Your task to perform on an android device: open app "AliExpress" Image 0: 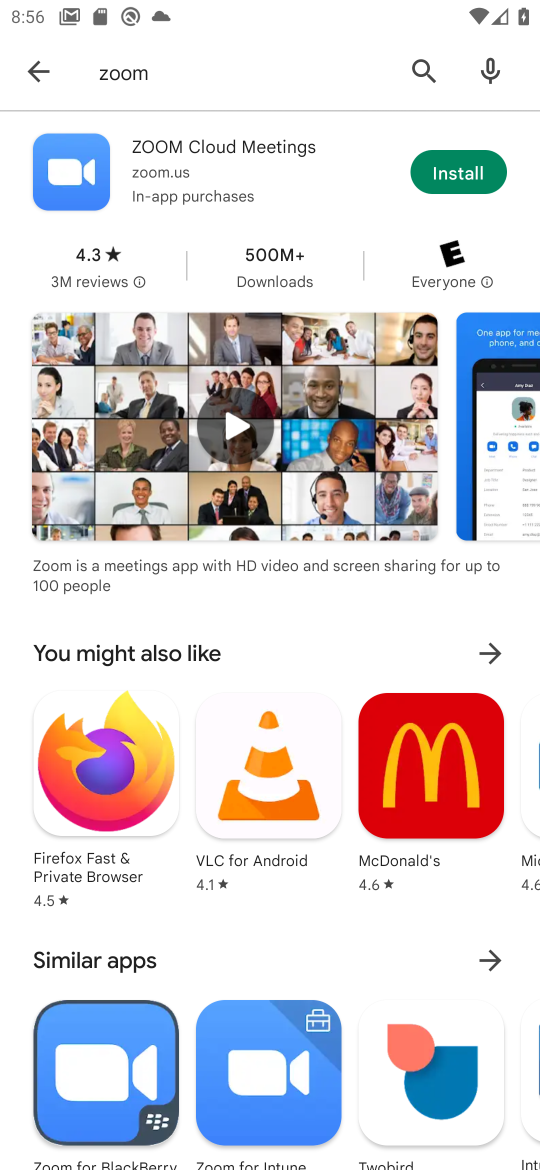
Step 0: press home button
Your task to perform on an android device: open app "AliExpress" Image 1: 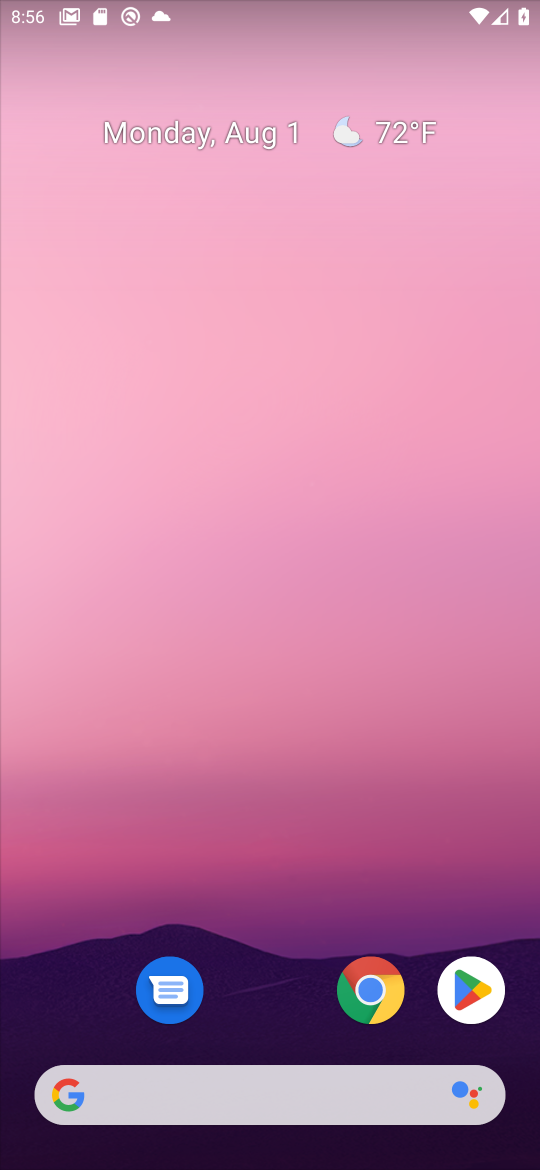
Step 1: click (456, 992)
Your task to perform on an android device: open app "AliExpress" Image 2: 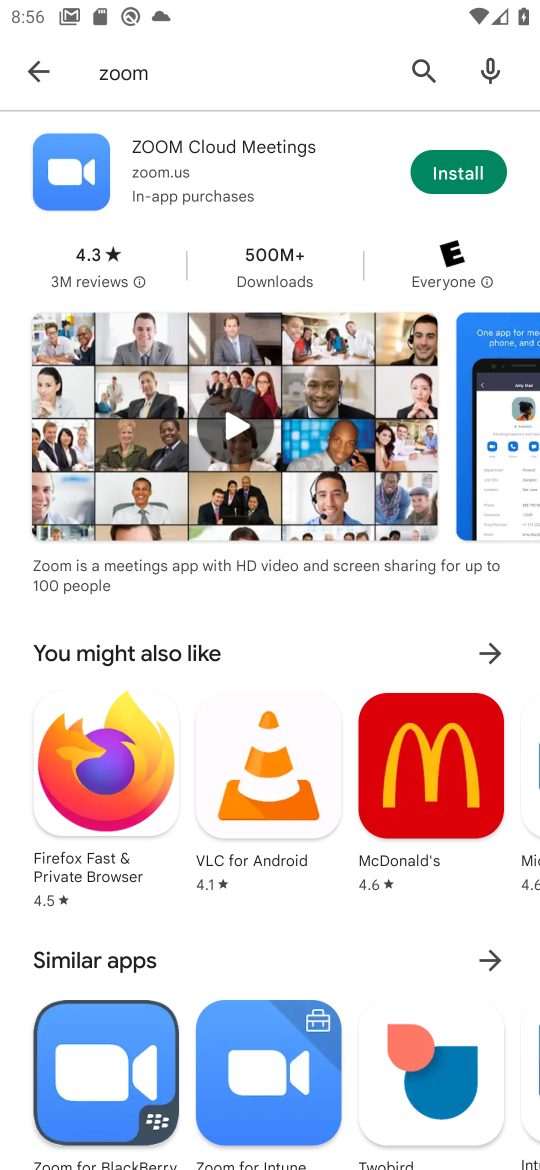
Step 2: click (415, 69)
Your task to perform on an android device: open app "AliExpress" Image 3: 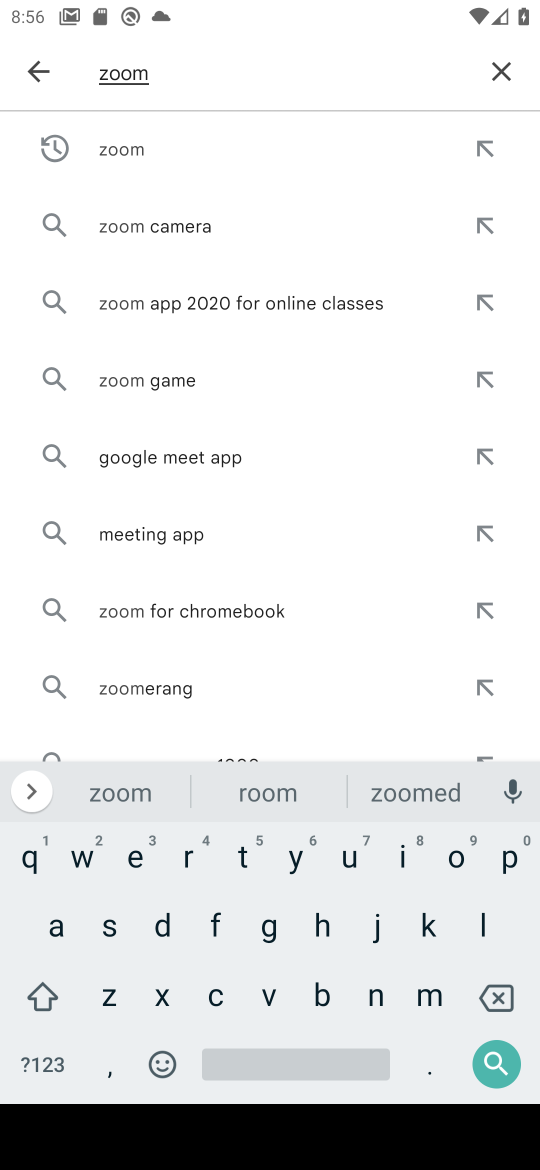
Step 3: click (497, 62)
Your task to perform on an android device: open app "AliExpress" Image 4: 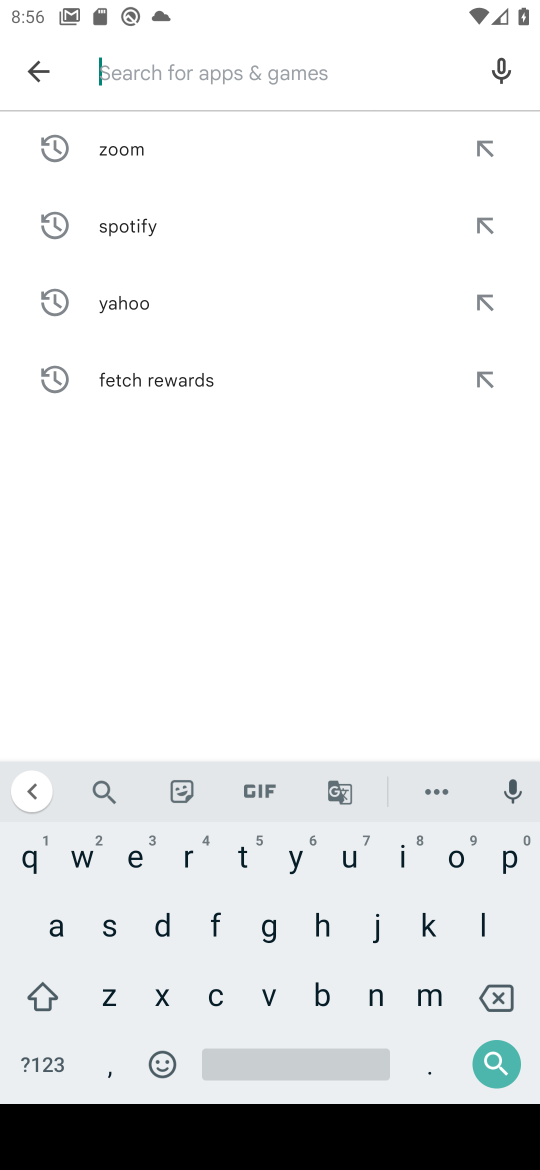
Step 4: click (55, 916)
Your task to perform on an android device: open app "AliExpress" Image 5: 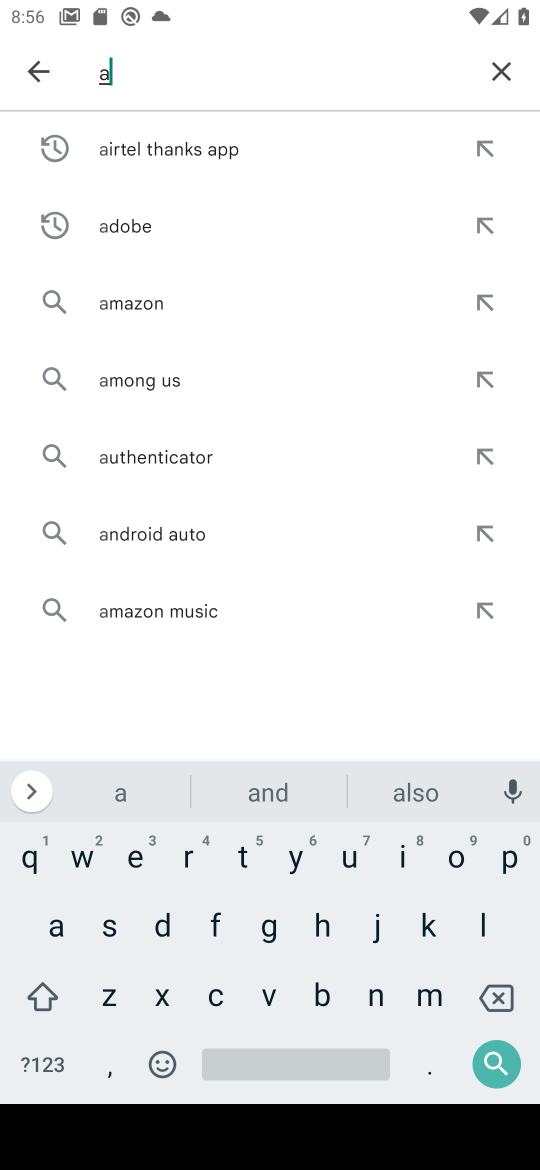
Step 5: click (464, 913)
Your task to perform on an android device: open app "AliExpress" Image 6: 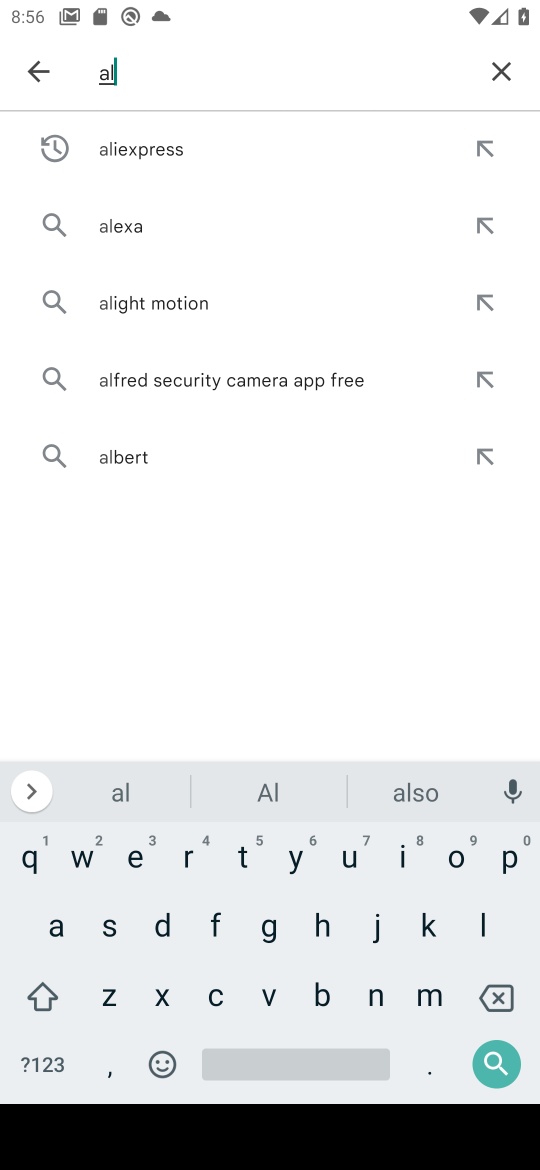
Step 6: click (403, 859)
Your task to perform on an android device: open app "AliExpress" Image 7: 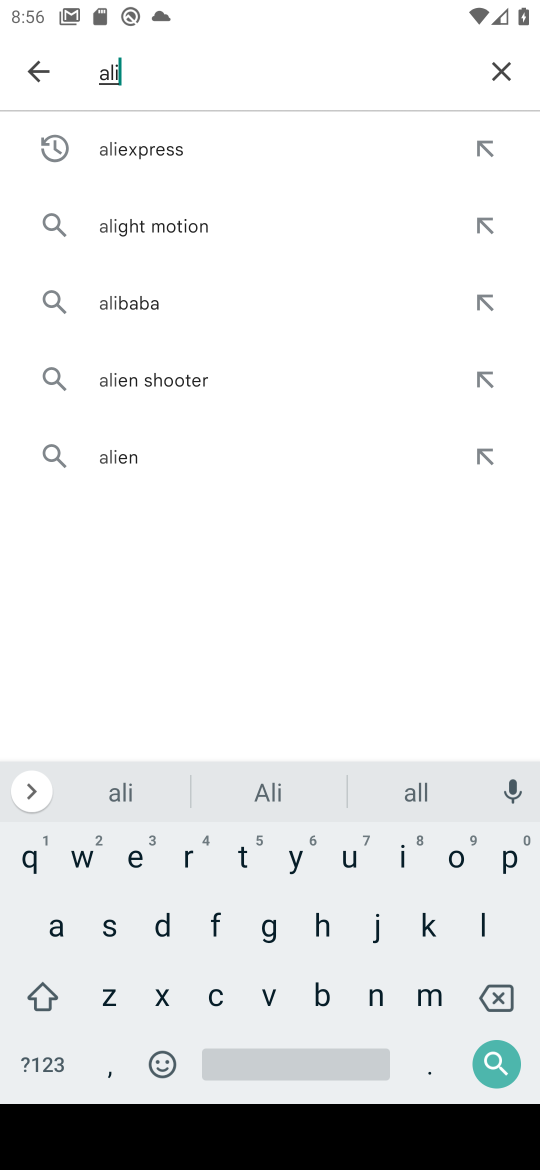
Step 7: click (273, 167)
Your task to perform on an android device: open app "AliExpress" Image 8: 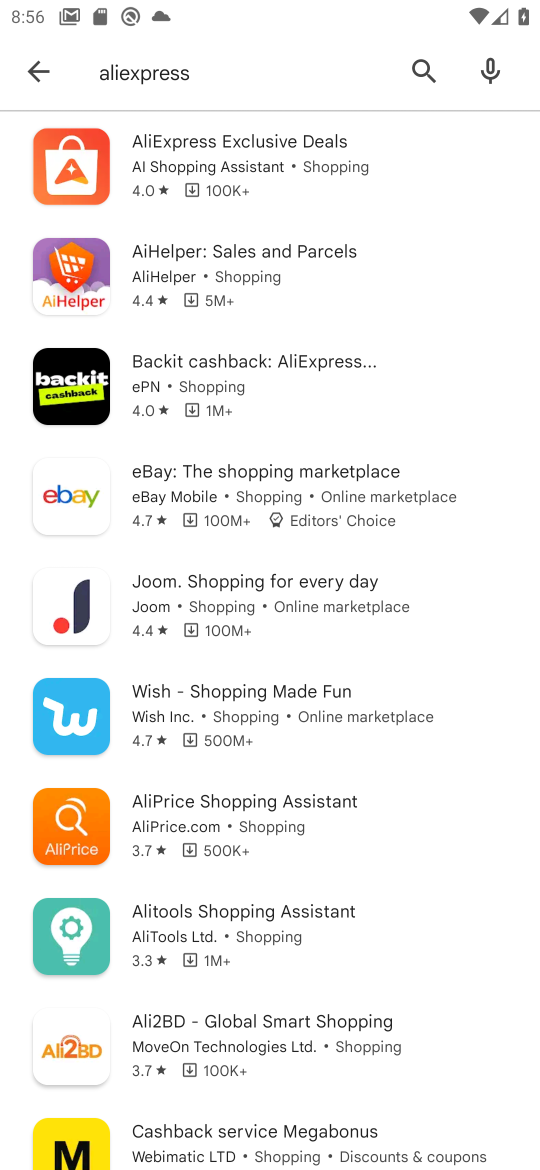
Step 8: click (254, 165)
Your task to perform on an android device: open app "AliExpress" Image 9: 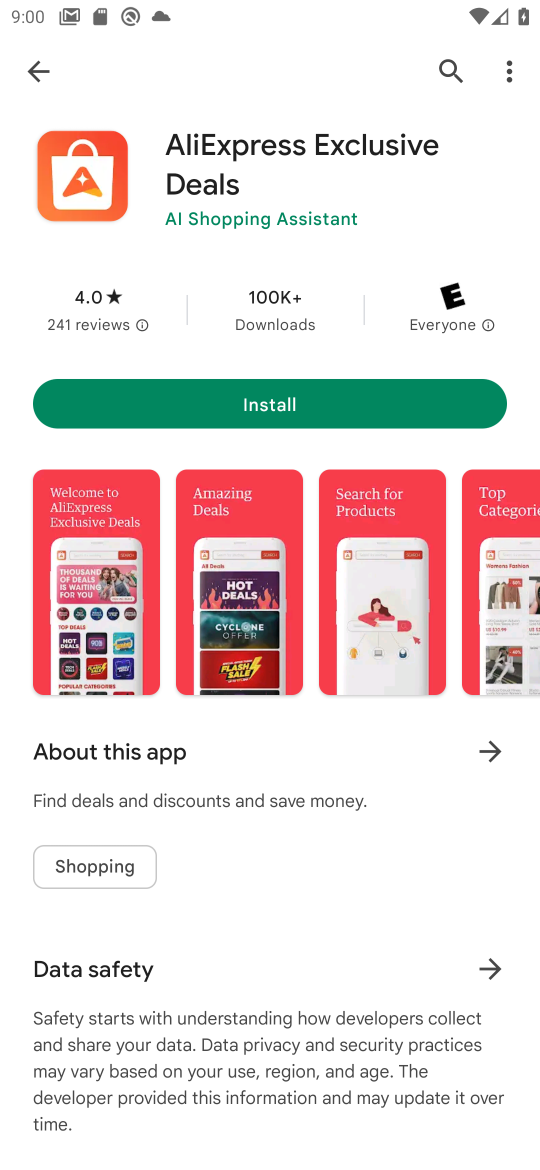
Step 9: task complete